Your task to perform on an android device: Open Youtube and go to the subscriptions tab Image 0: 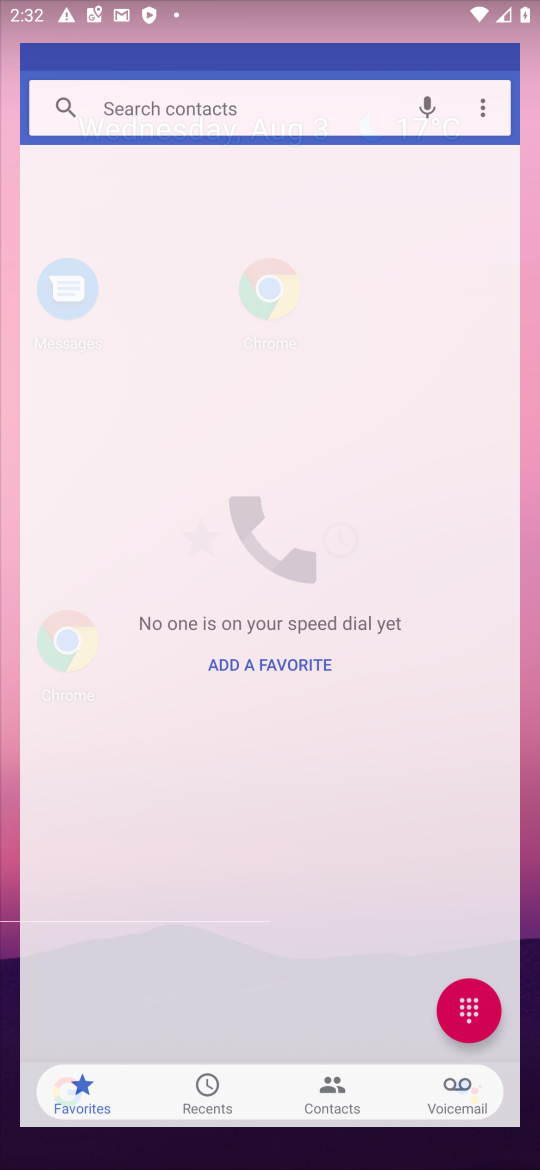
Step 0: drag from (328, 984) to (326, 862)
Your task to perform on an android device: Open Youtube and go to the subscriptions tab Image 1: 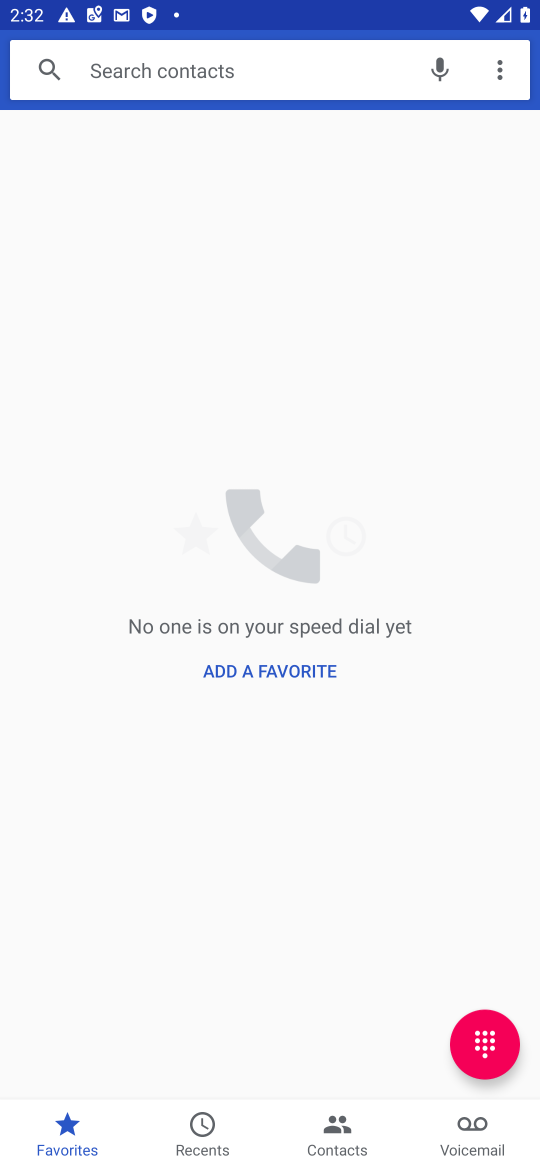
Step 1: press home button
Your task to perform on an android device: Open Youtube and go to the subscriptions tab Image 2: 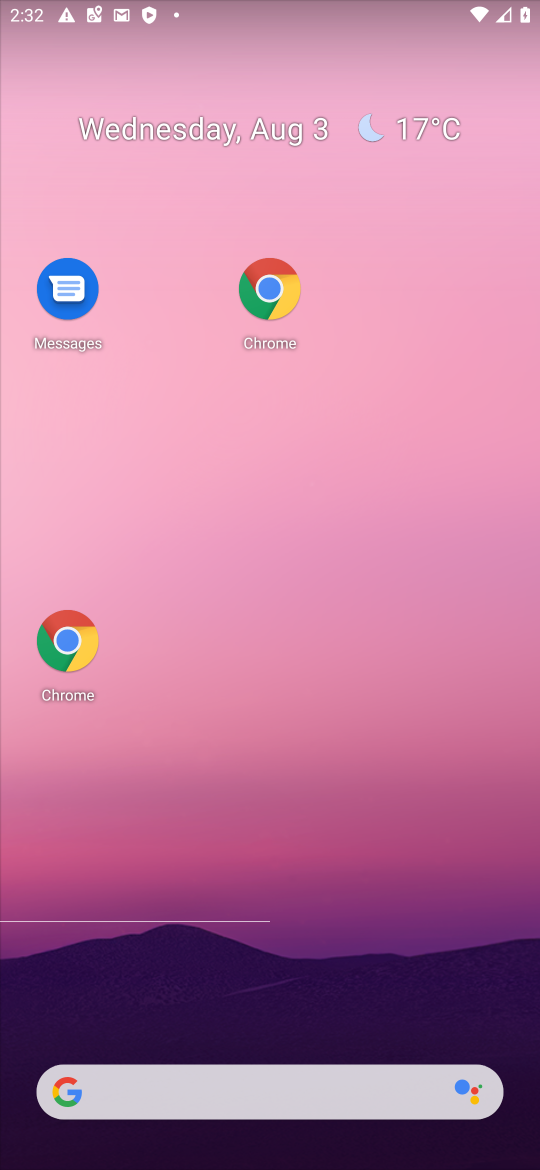
Step 2: drag from (312, 1057) to (355, 309)
Your task to perform on an android device: Open Youtube and go to the subscriptions tab Image 3: 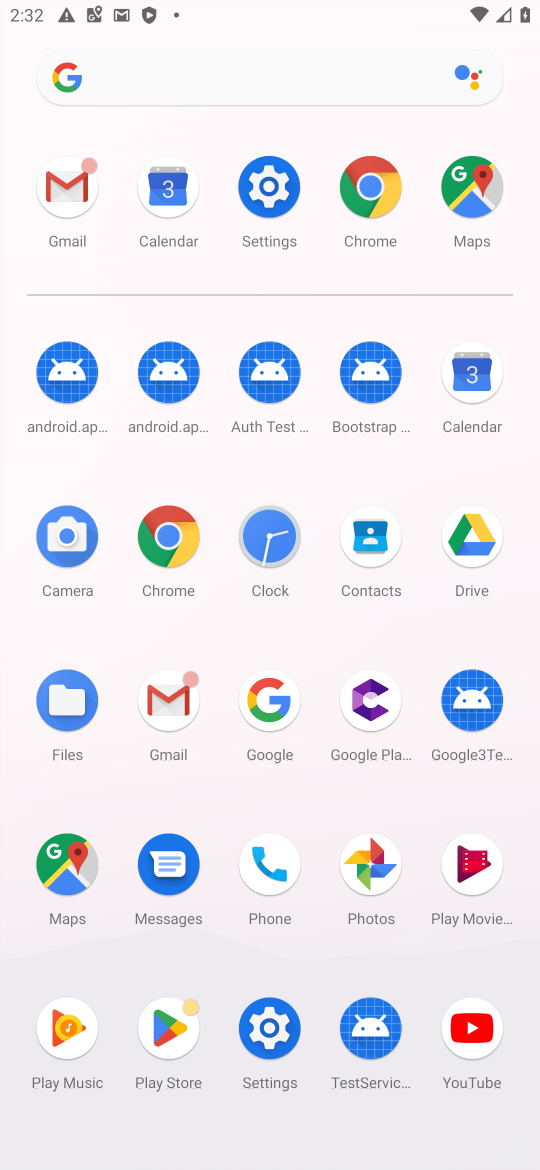
Step 3: click (475, 1047)
Your task to perform on an android device: Open Youtube and go to the subscriptions tab Image 4: 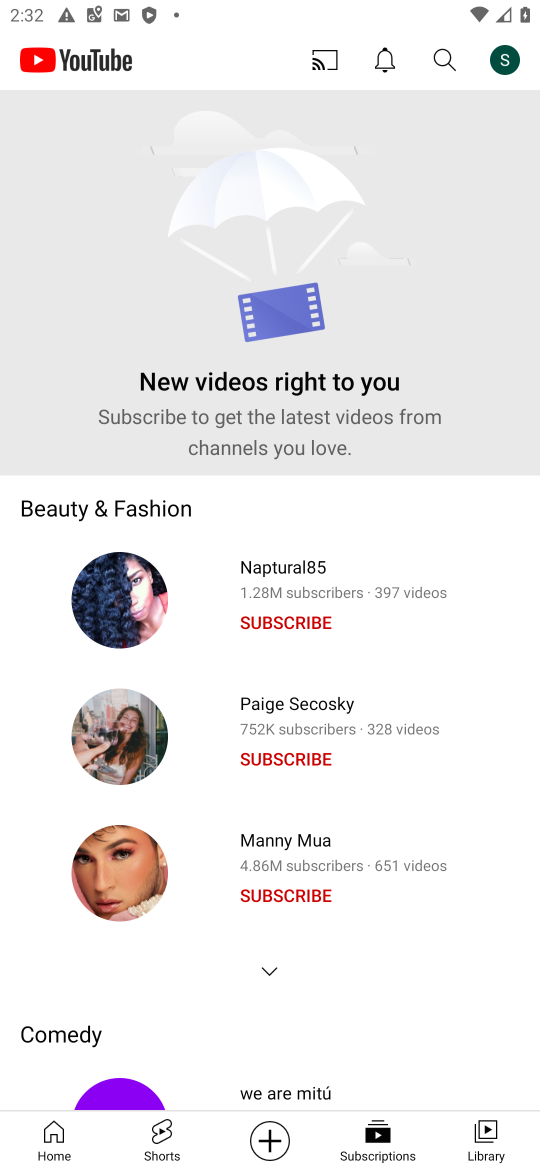
Step 4: task complete